Your task to perform on an android device: Open the stopwatch Image 0: 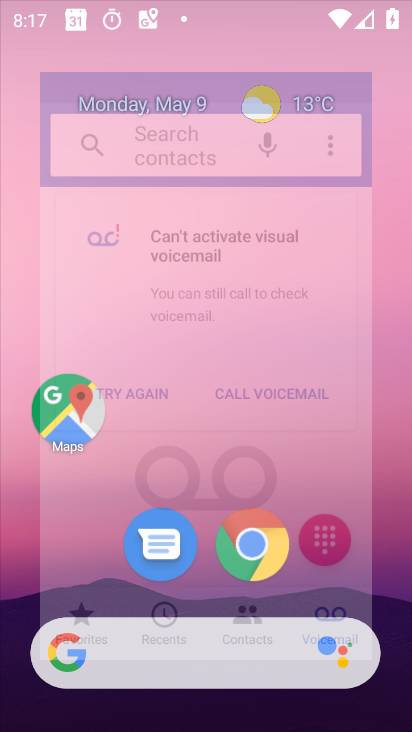
Step 0: drag from (328, 587) to (335, 59)
Your task to perform on an android device: Open the stopwatch Image 1: 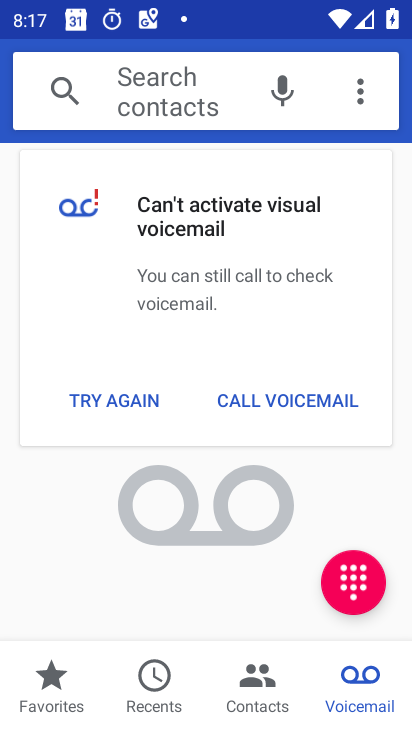
Step 1: press home button
Your task to perform on an android device: Open the stopwatch Image 2: 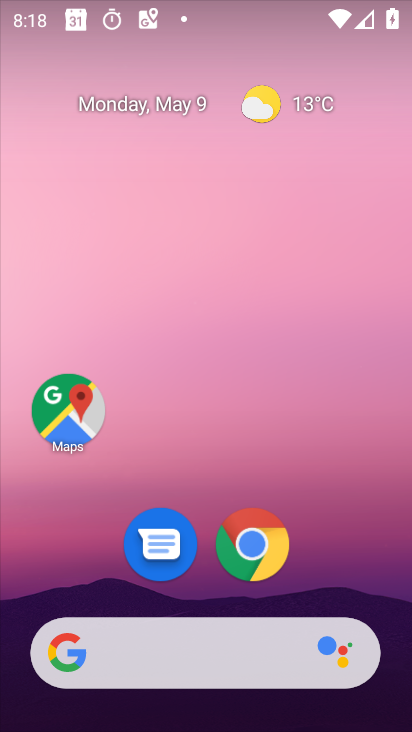
Step 2: drag from (341, 487) to (286, 21)
Your task to perform on an android device: Open the stopwatch Image 3: 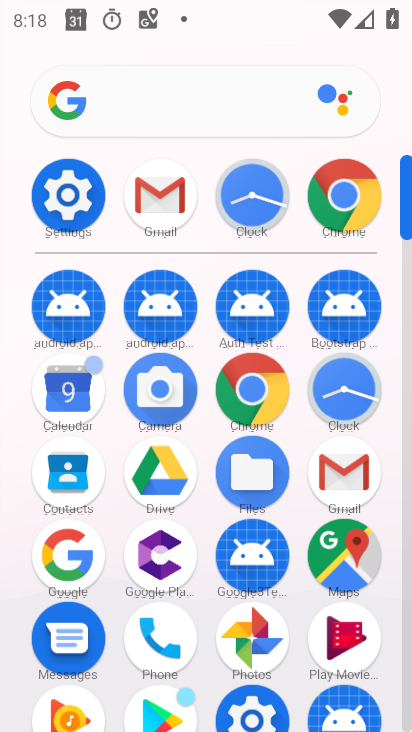
Step 3: click (270, 178)
Your task to perform on an android device: Open the stopwatch Image 4: 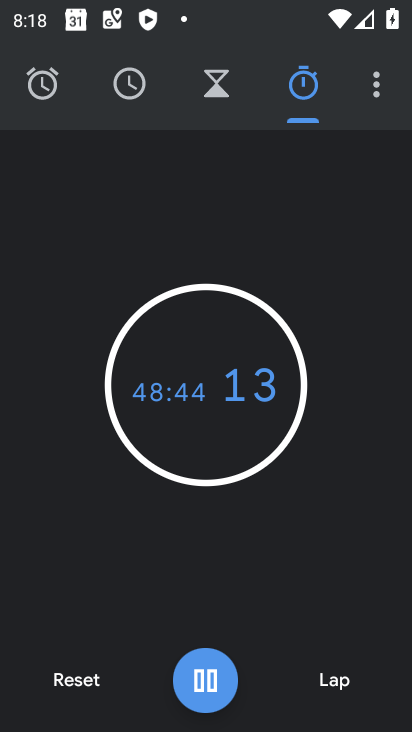
Step 4: task complete